Your task to perform on an android device: Open calendar and show me the first week of next month Image 0: 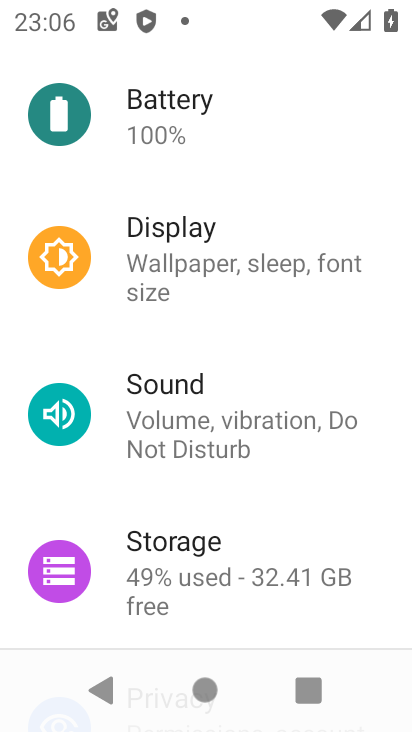
Step 0: press home button
Your task to perform on an android device: Open calendar and show me the first week of next month Image 1: 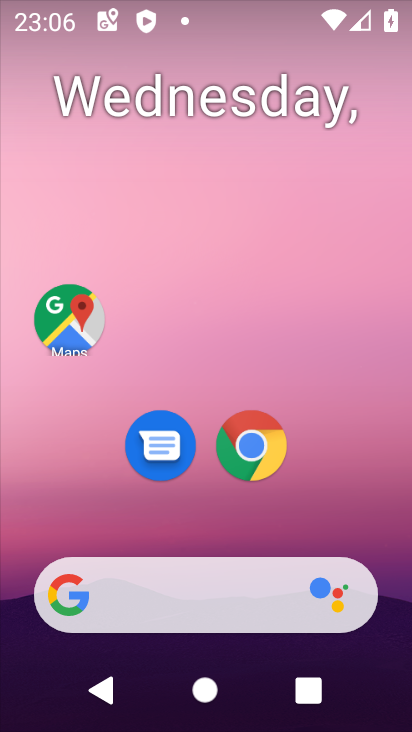
Step 1: drag from (309, 554) to (349, 175)
Your task to perform on an android device: Open calendar and show me the first week of next month Image 2: 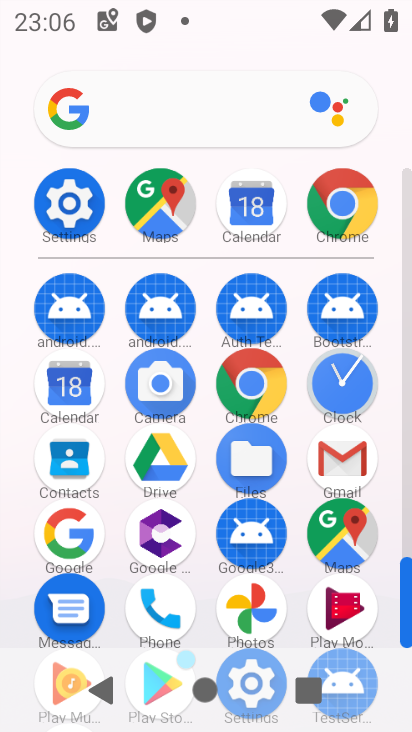
Step 2: click (61, 380)
Your task to perform on an android device: Open calendar and show me the first week of next month Image 3: 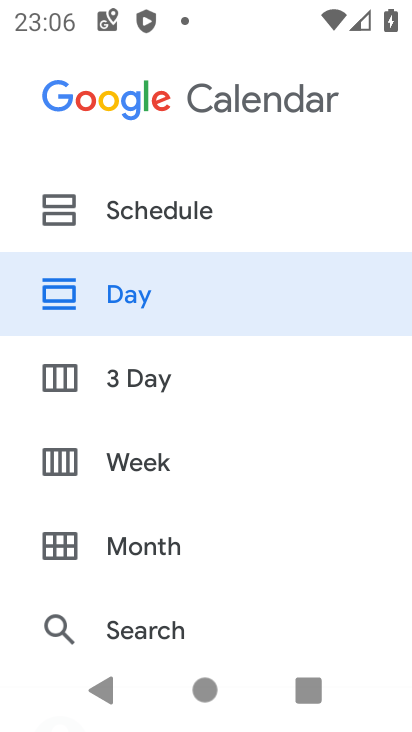
Step 3: click (205, 538)
Your task to perform on an android device: Open calendar and show me the first week of next month Image 4: 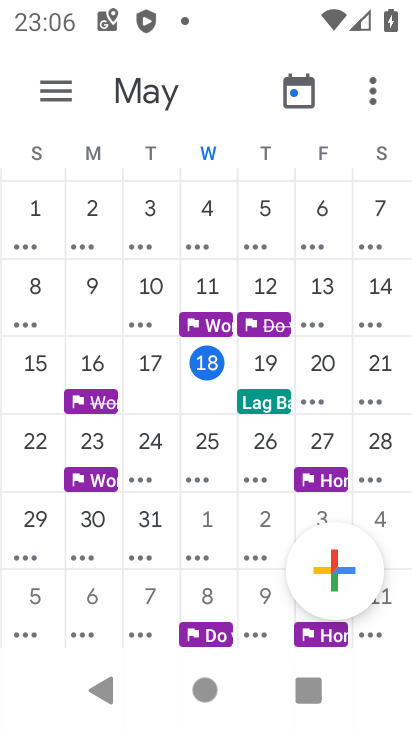
Step 4: task complete